Your task to perform on an android device: Go to eBay Image 0: 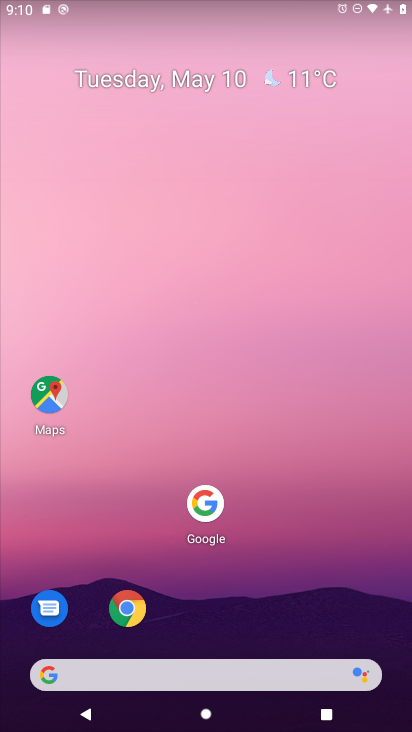
Step 0: drag from (286, 661) to (403, 88)
Your task to perform on an android device: Go to eBay Image 1: 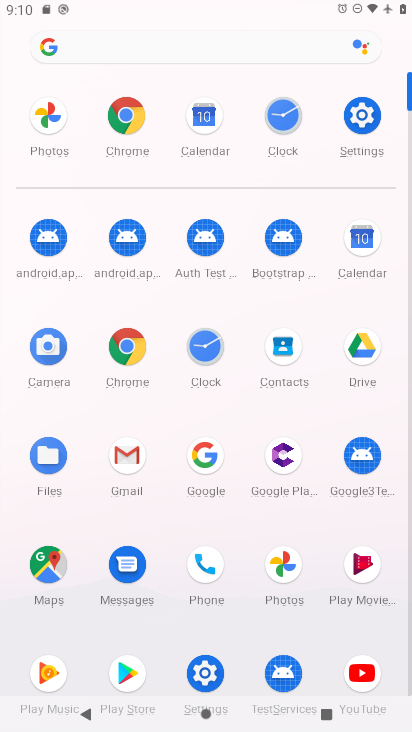
Step 1: click (140, 120)
Your task to perform on an android device: Go to eBay Image 2: 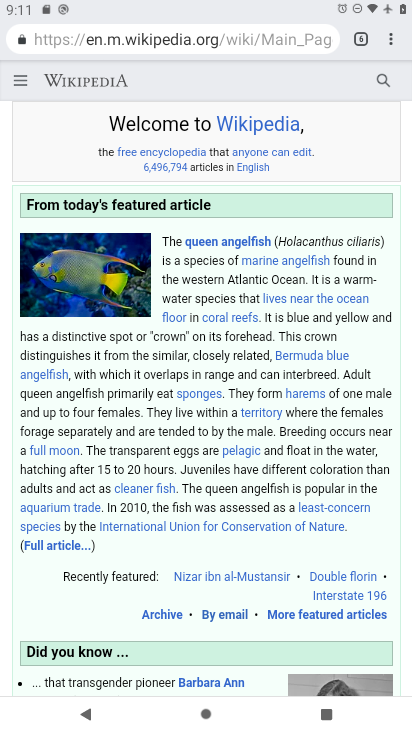
Step 2: drag from (393, 39) to (346, 83)
Your task to perform on an android device: Go to eBay Image 3: 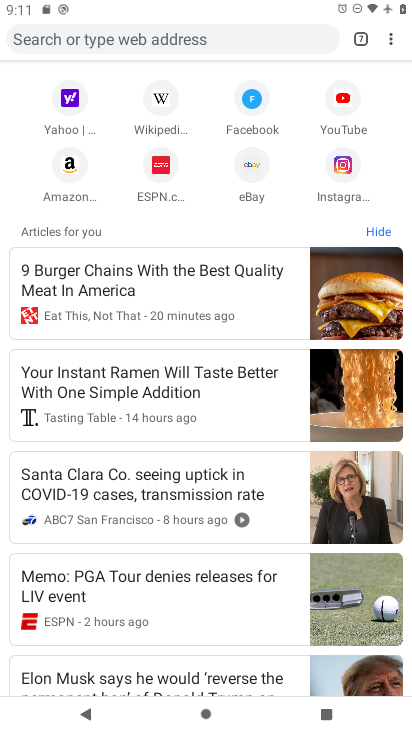
Step 3: click (258, 165)
Your task to perform on an android device: Go to eBay Image 4: 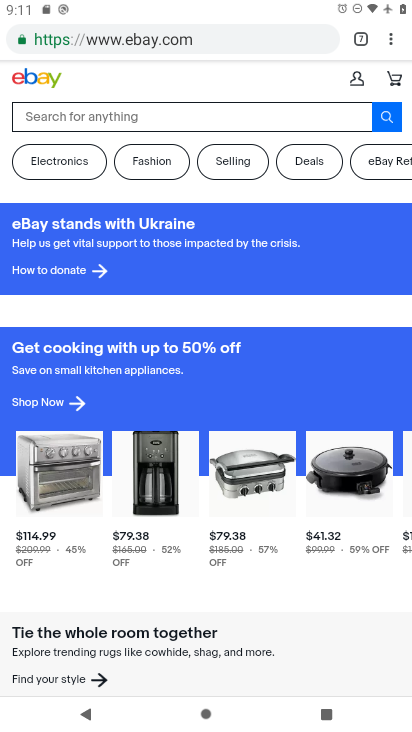
Step 4: task complete